Your task to perform on an android device: open chrome privacy settings Image 0: 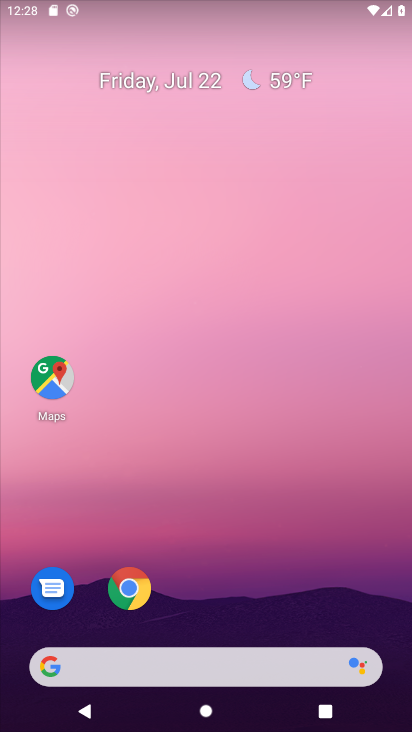
Step 0: click (213, 200)
Your task to perform on an android device: open chrome privacy settings Image 1: 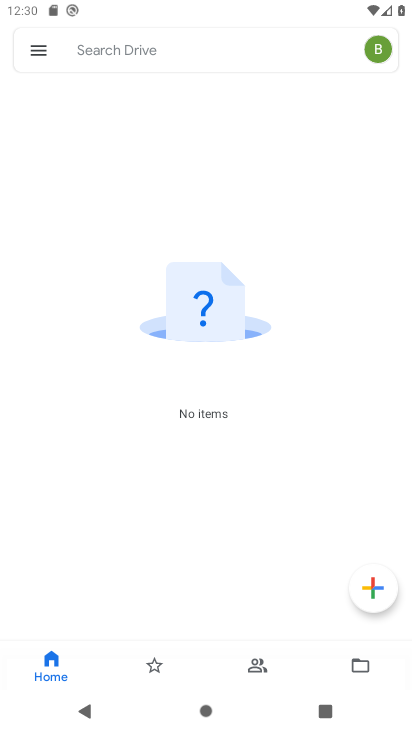
Step 1: press home button
Your task to perform on an android device: open chrome privacy settings Image 2: 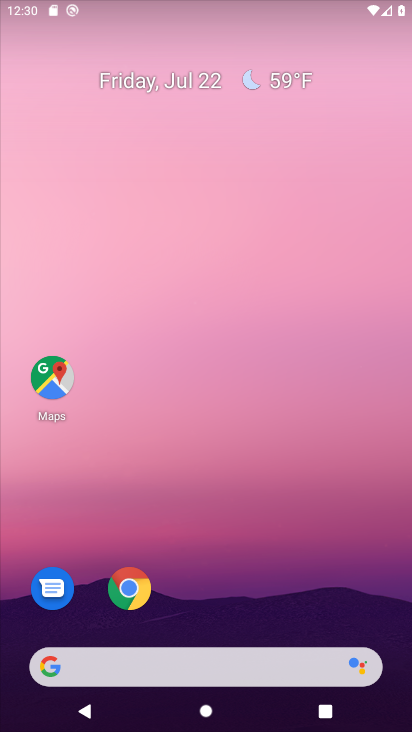
Step 2: drag from (193, 655) to (198, 306)
Your task to perform on an android device: open chrome privacy settings Image 3: 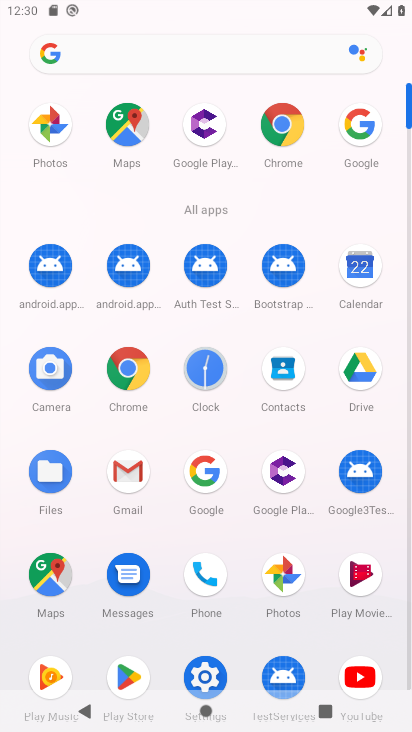
Step 3: click (133, 376)
Your task to perform on an android device: open chrome privacy settings Image 4: 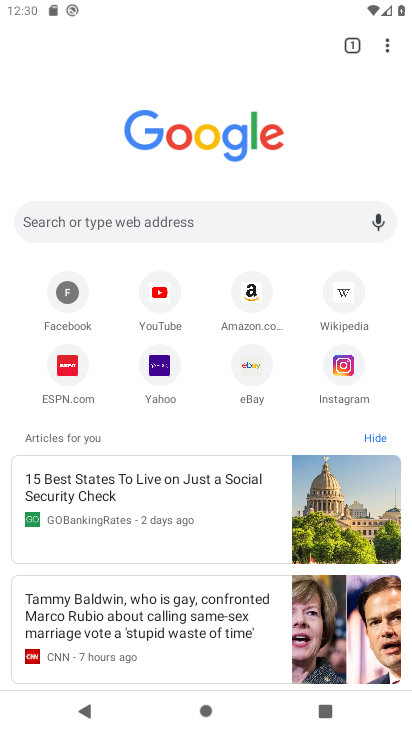
Step 4: click (383, 47)
Your task to perform on an android device: open chrome privacy settings Image 5: 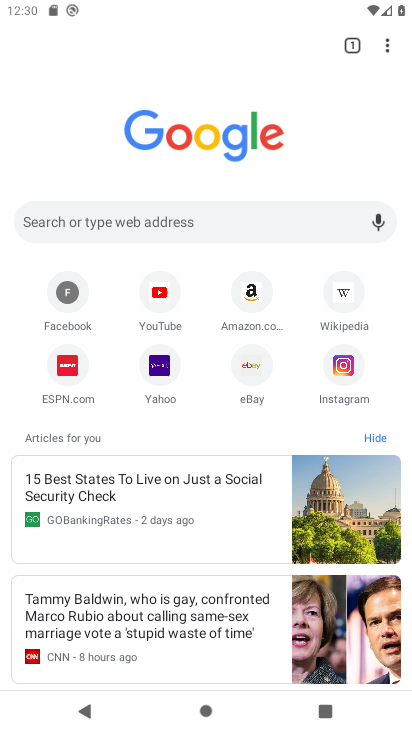
Step 5: click (378, 48)
Your task to perform on an android device: open chrome privacy settings Image 6: 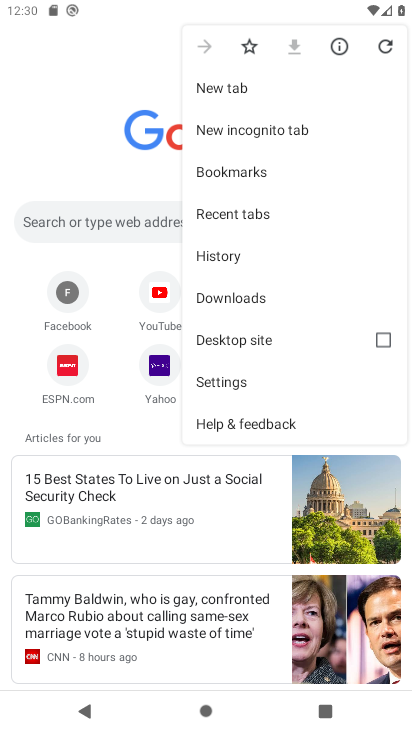
Step 6: click (236, 381)
Your task to perform on an android device: open chrome privacy settings Image 7: 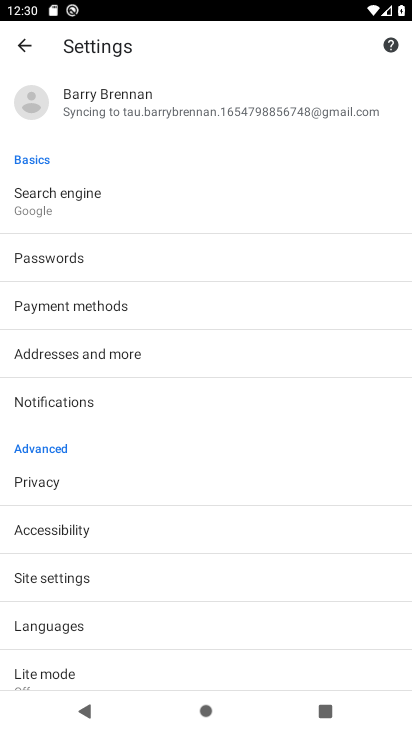
Step 7: click (28, 473)
Your task to perform on an android device: open chrome privacy settings Image 8: 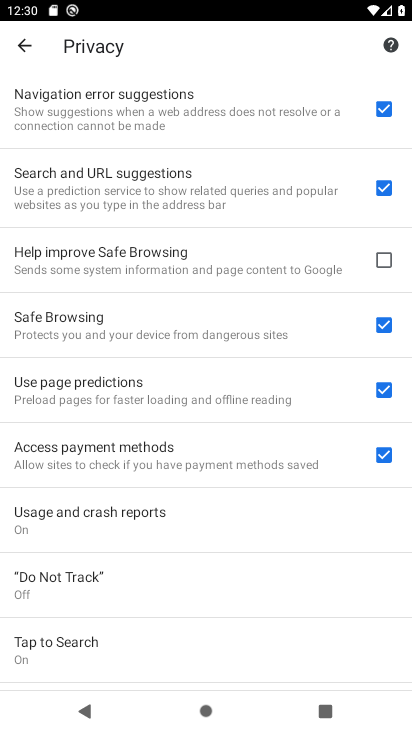
Step 8: task complete